Your task to perform on an android device: Go to sound settings Image 0: 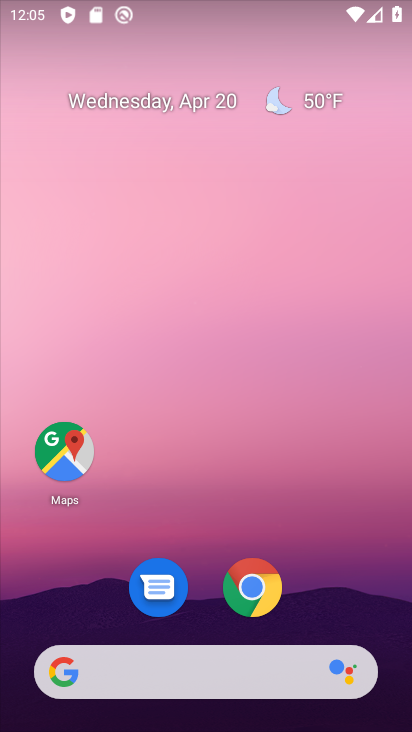
Step 0: drag from (203, 532) to (266, 12)
Your task to perform on an android device: Go to sound settings Image 1: 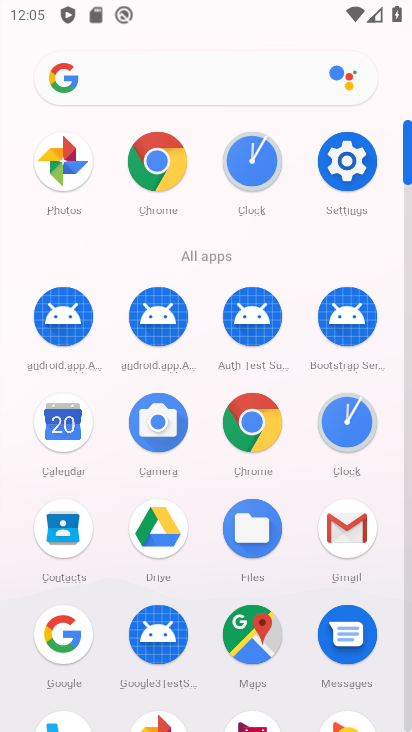
Step 1: click (349, 170)
Your task to perform on an android device: Go to sound settings Image 2: 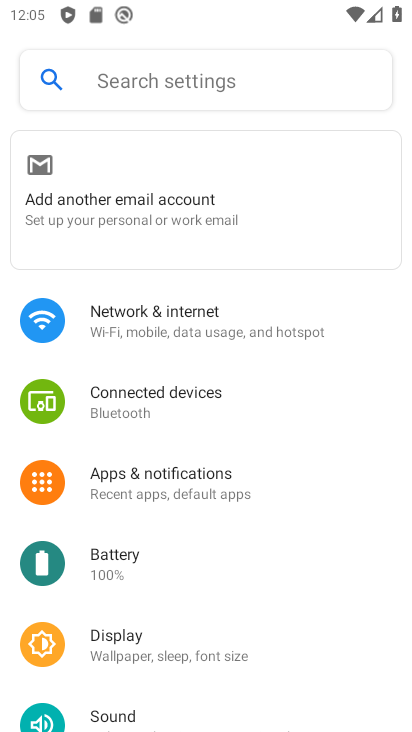
Step 2: drag from (171, 654) to (270, 204)
Your task to perform on an android device: Go to sound settings Image 3: 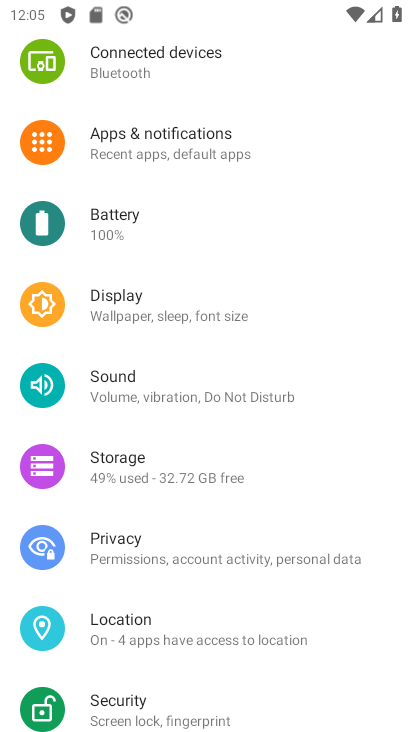
Step 3: click (171, 398)
Your task to perform on an android device: Go to sound settings Image 4: 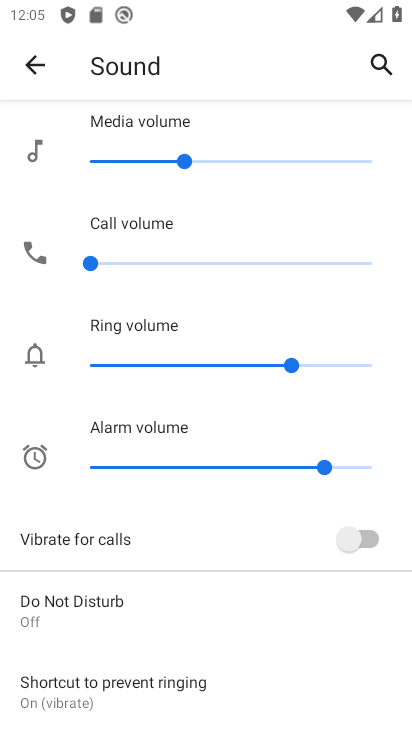
Step 4: task complete